Your task to perform on an android device: Search for the best running shoes on Nike. Image 0: 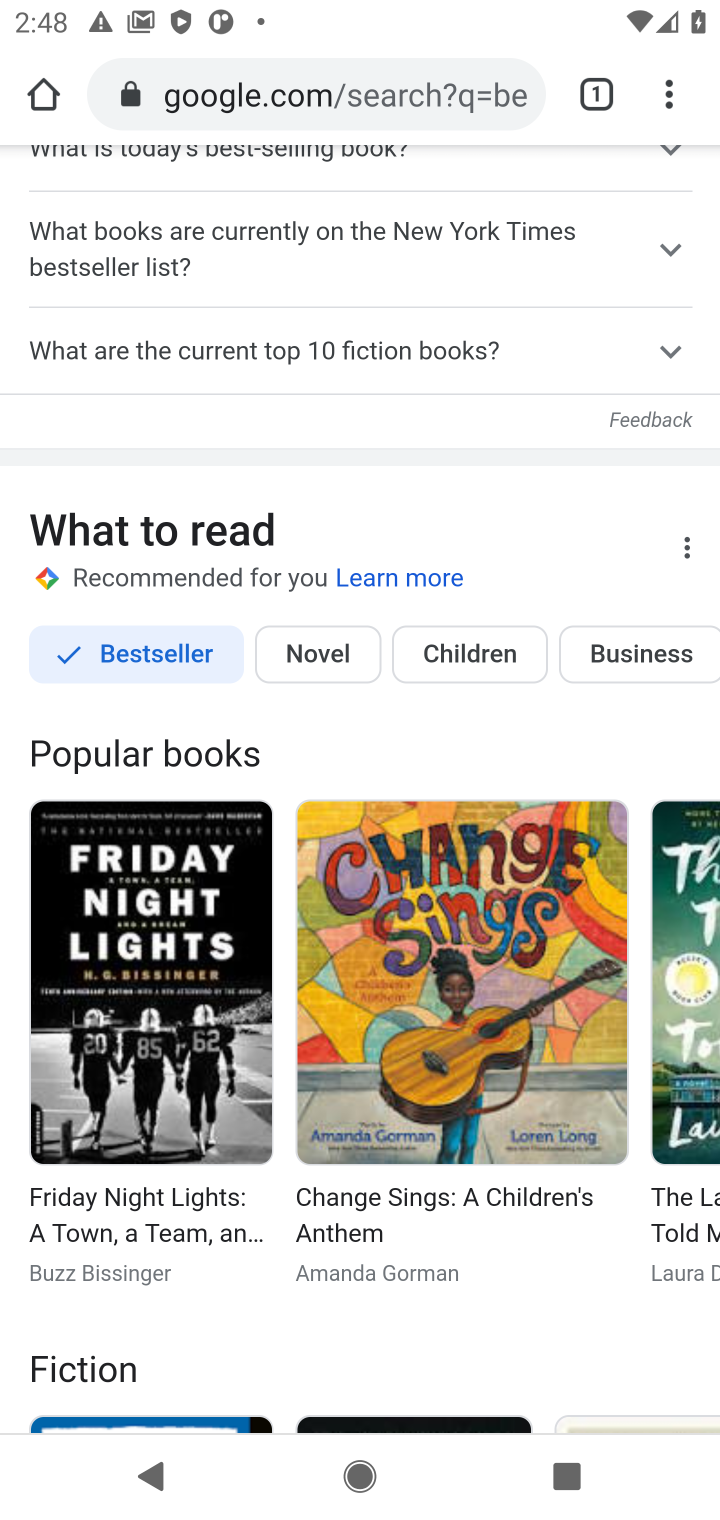
Step 0: press home button
Your task to perform on an android device: Search for the best running shoes on Nike. Image 1: 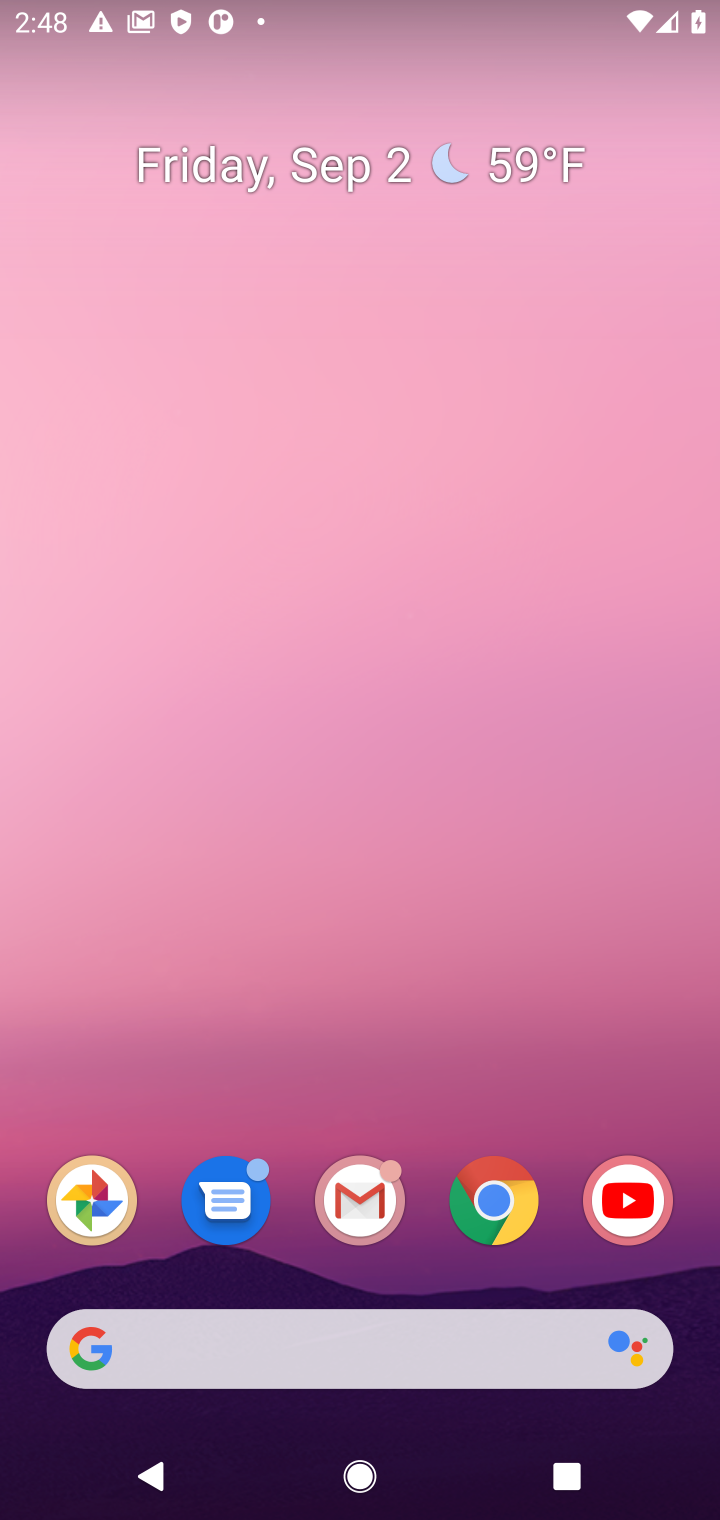
Step 1: click (502, 1201)
Your task to perform on an android device: Search for the best running shoes on Nike. Image 2: 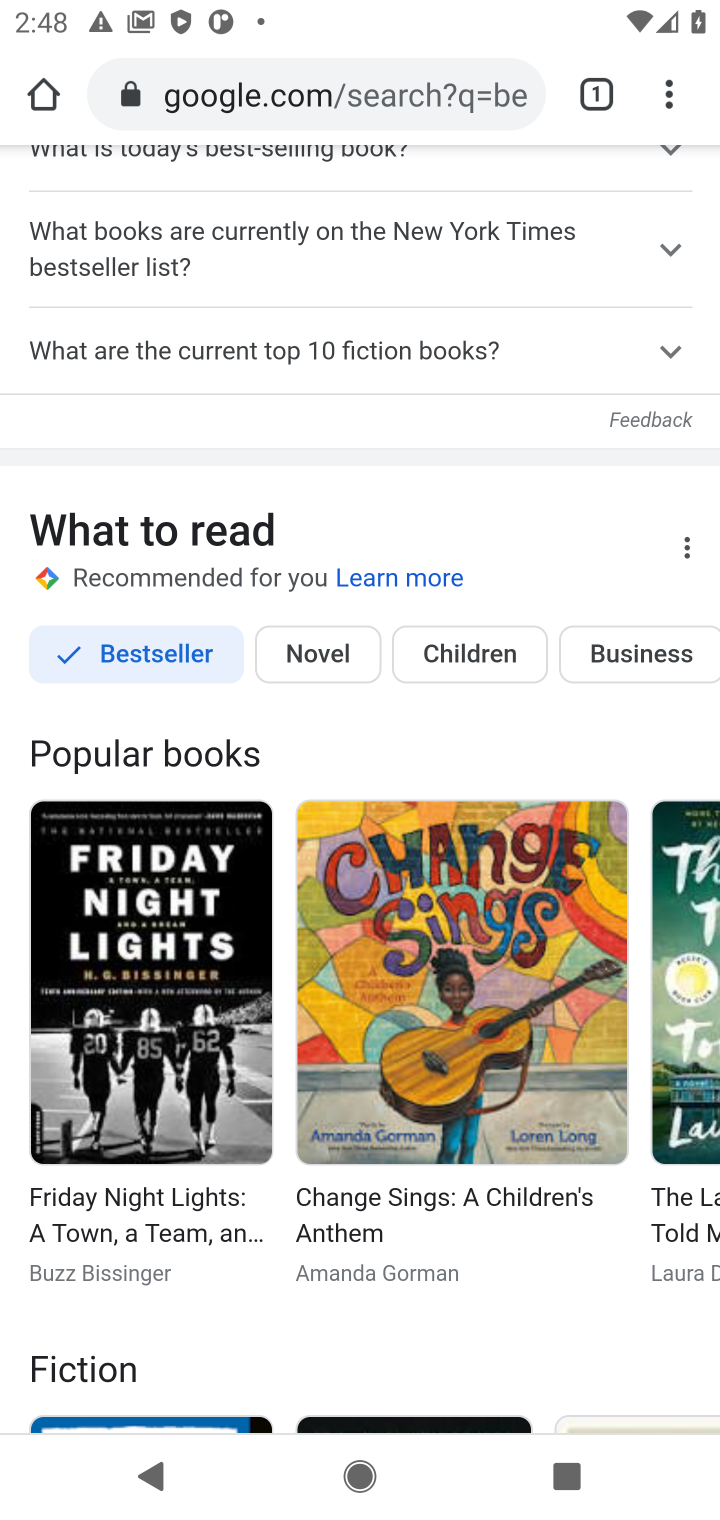
Step 2: click (357, 93)
Your task to perform on an android device: Search for the best running shoes on Nike. Image 3: 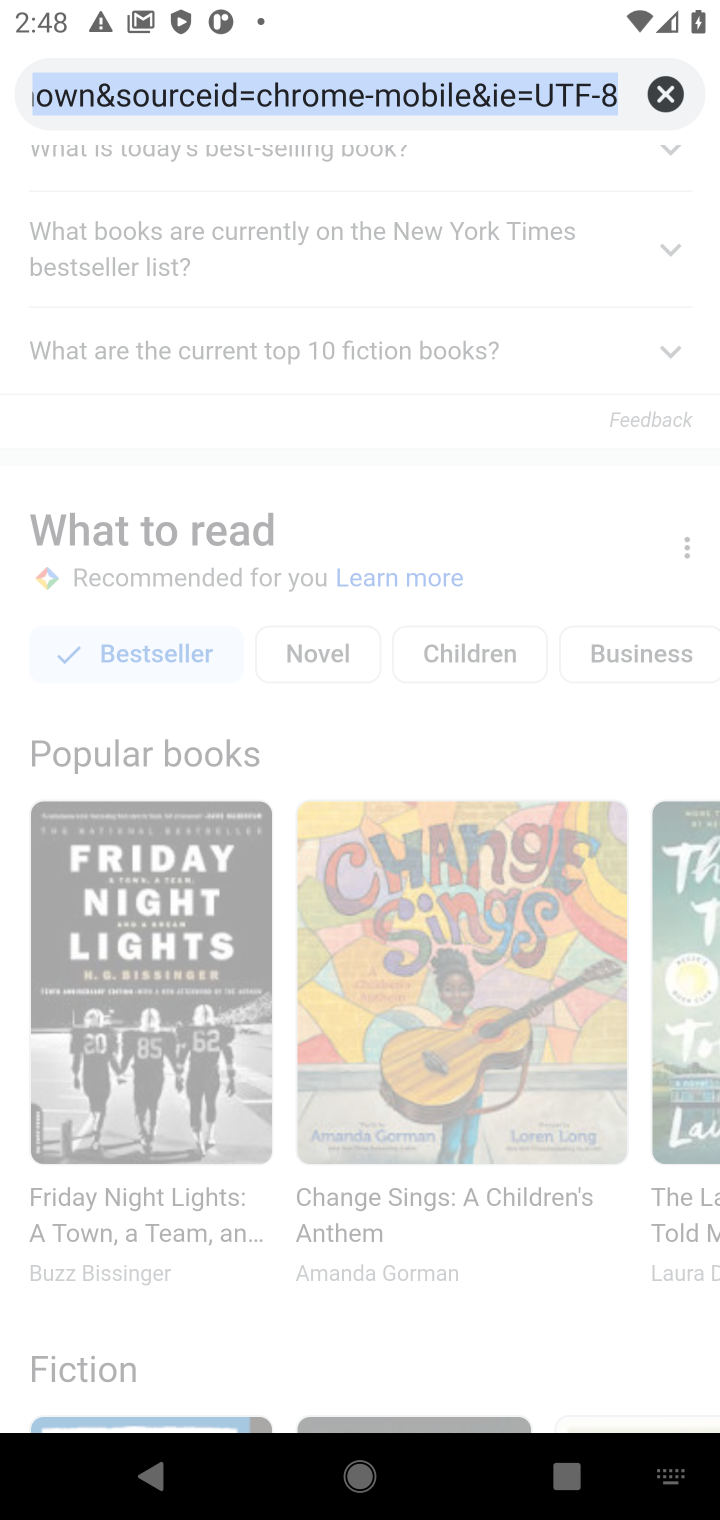
Step 3: click (658, 80)
Your task to perform on an android device: Search for the best running shoes on Nike. Image 4: 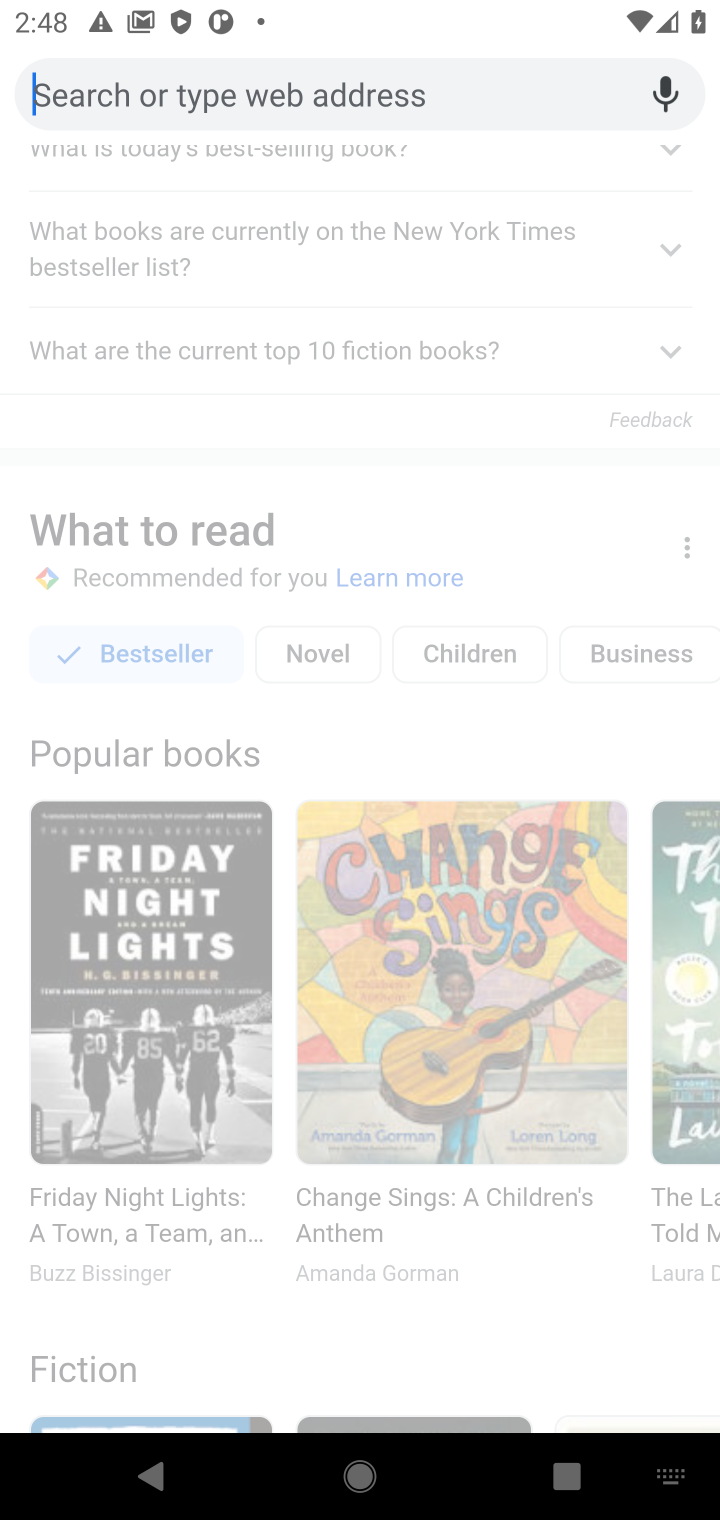
Step 4: type "Nike"
Your task to perform on an android device: Search for the best running shoes on Nike. Image 5: 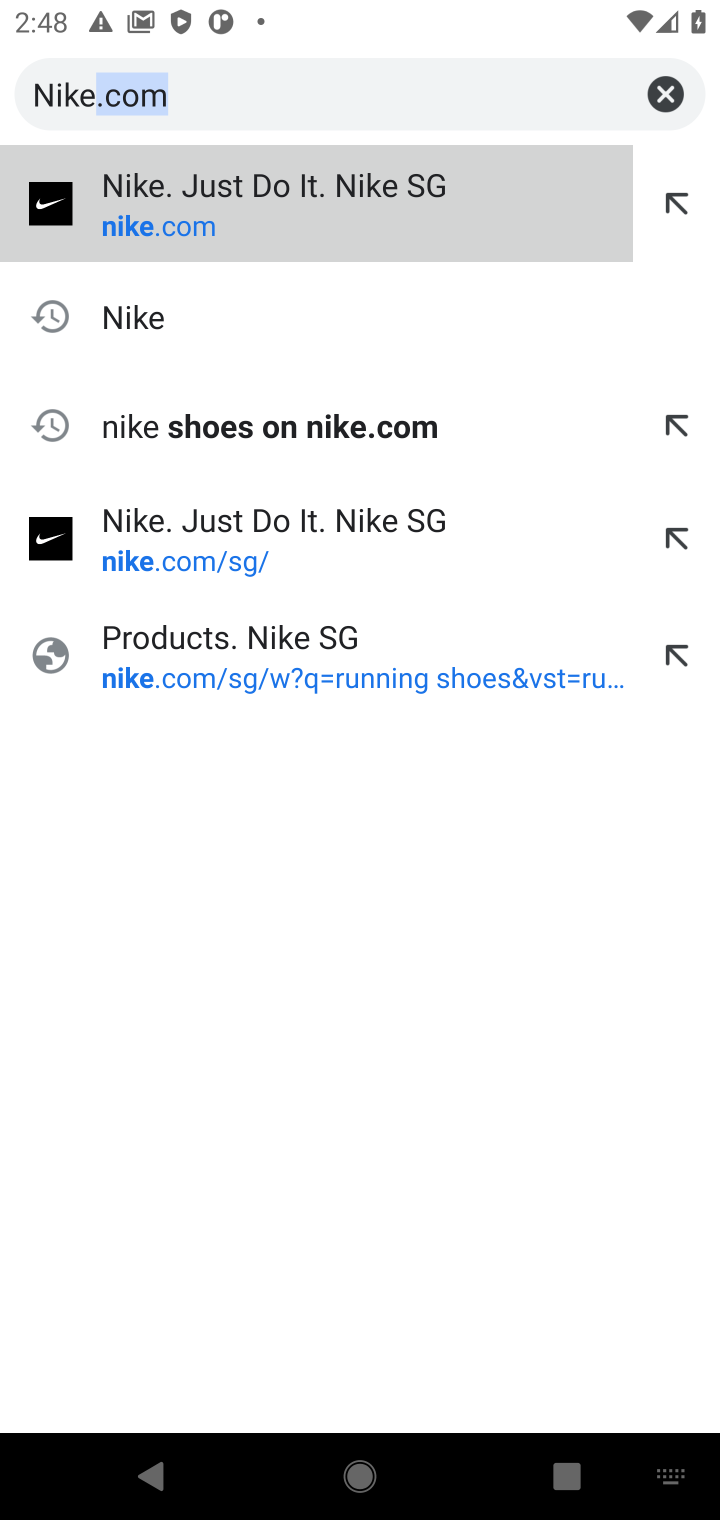
Step 5: press enter
Your task to perform on an android device: Search for the best running shoes on Nike. Image 6: 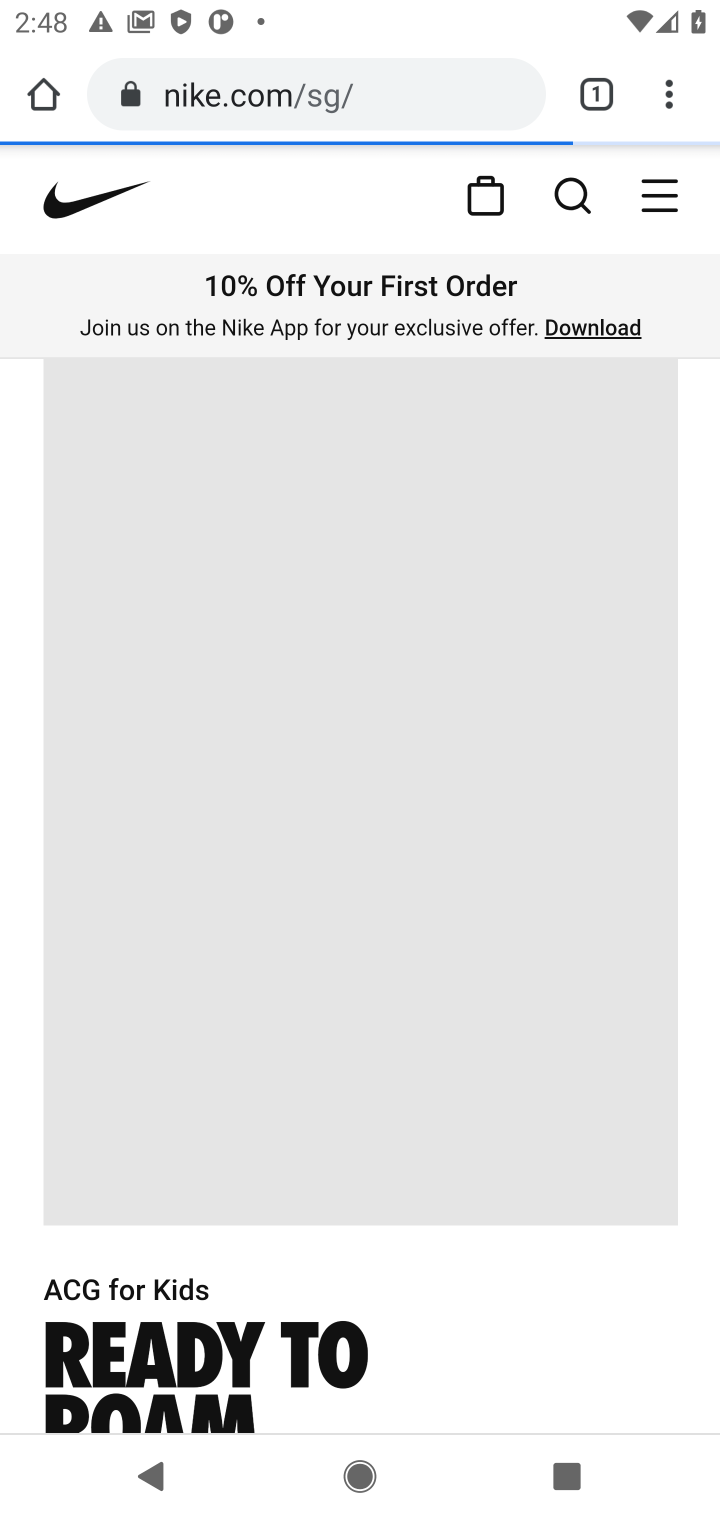
Step 6: click (408, 183)
Your task to perform on an android device: Search for the best running shoes on Nike. Image 7: 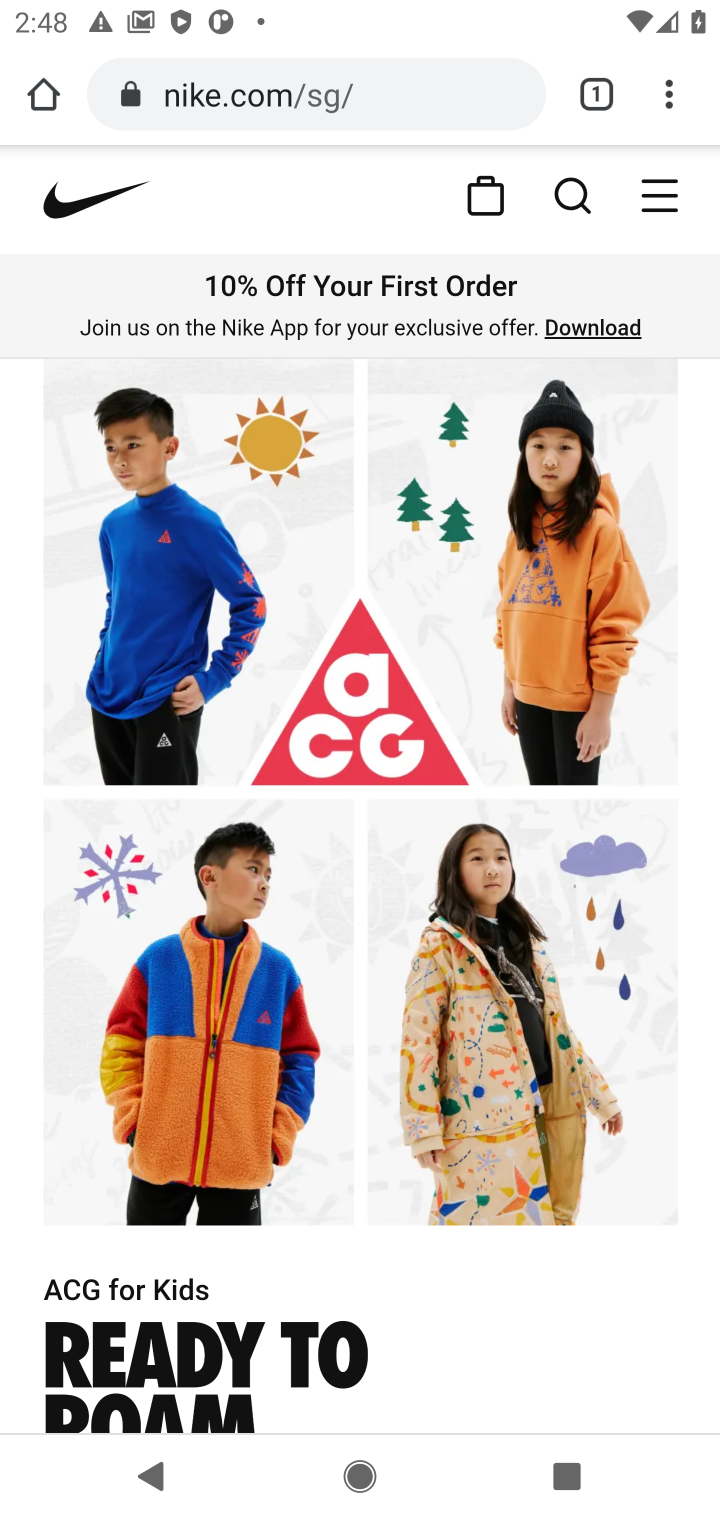
Step 7: click (424, 185)
Your task to perform on an android device: Search for the best running shoes on Nike. Image 8: 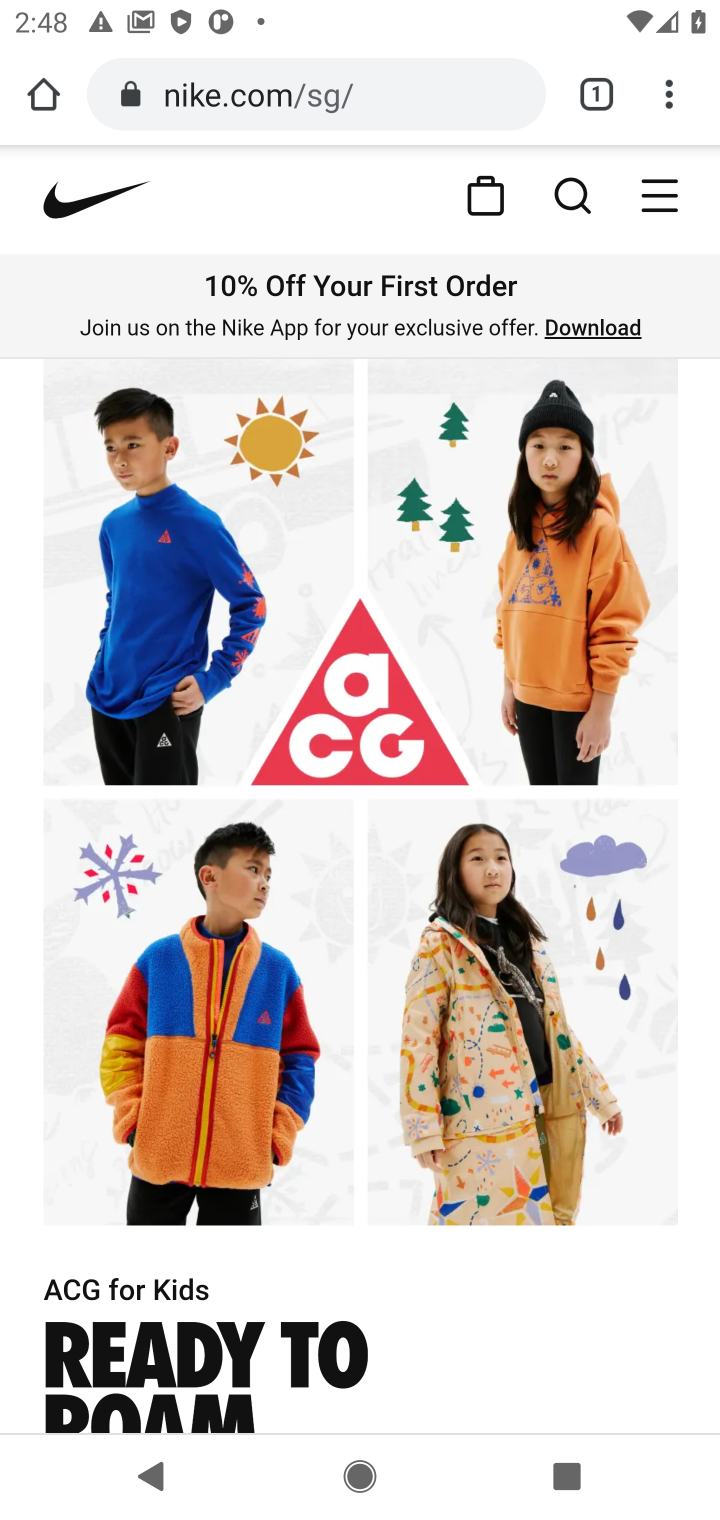
Step 8: click (537, 209)
Your task to perform on an android device: Search for the best running shoes on Nike. Image 9: 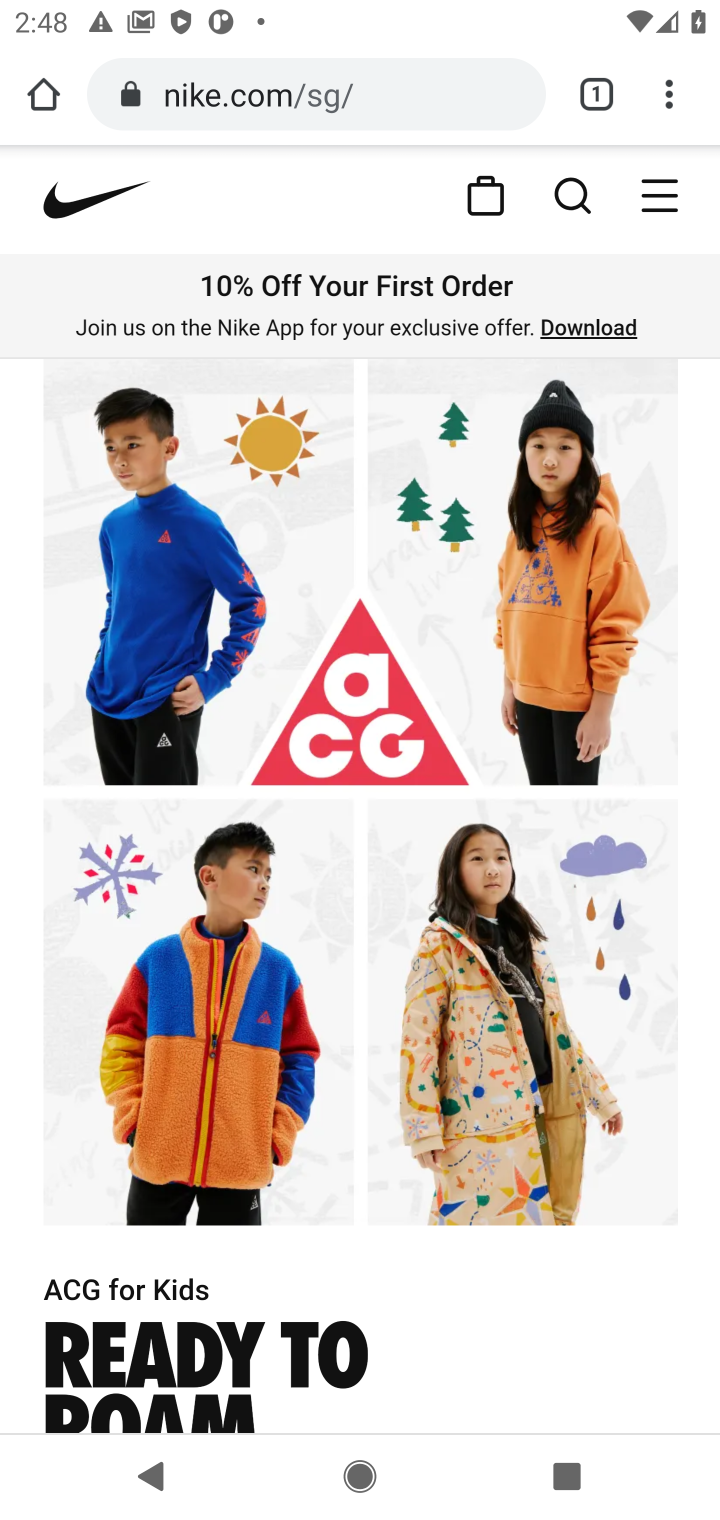
Step 9: click (562, 166)
Your task to perform on an android device: Search for the best running shoes on Nike. Image 10: 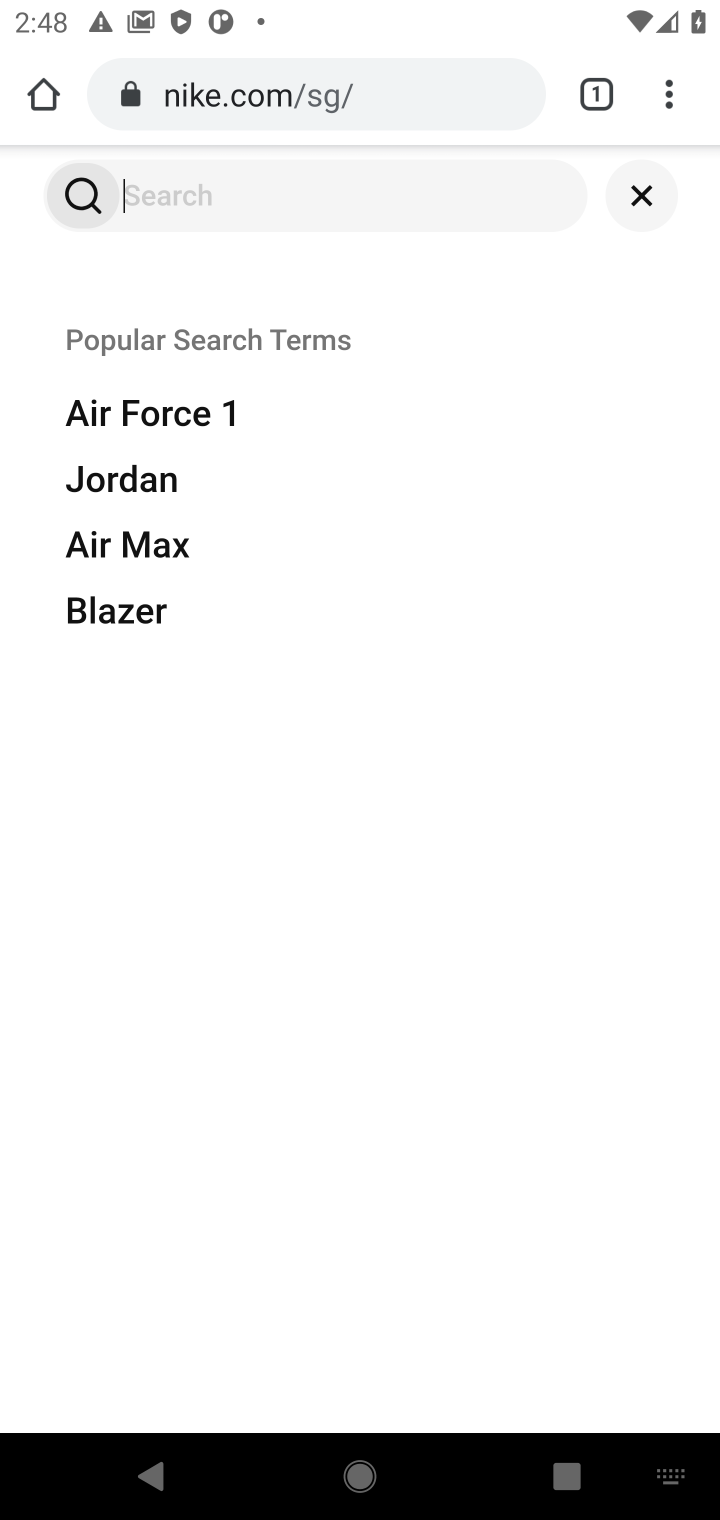
Step 10: click (319, 179)
Your task to perform on an android device: Search for the best running shoes on Nike. Image 11: 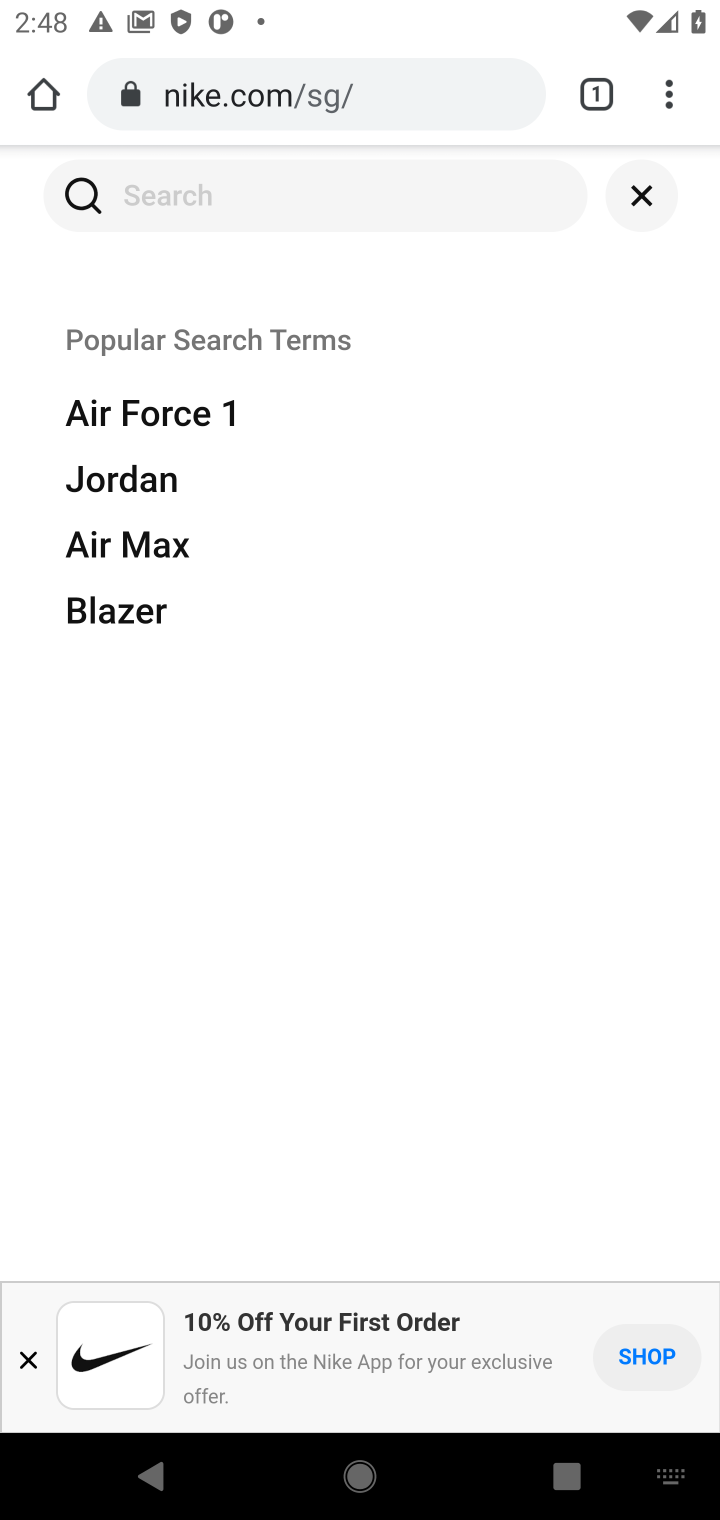
Step 11: type " running shoes"
Your task to perform on an android device: Search for the best running shoes on Nike. Image 12: 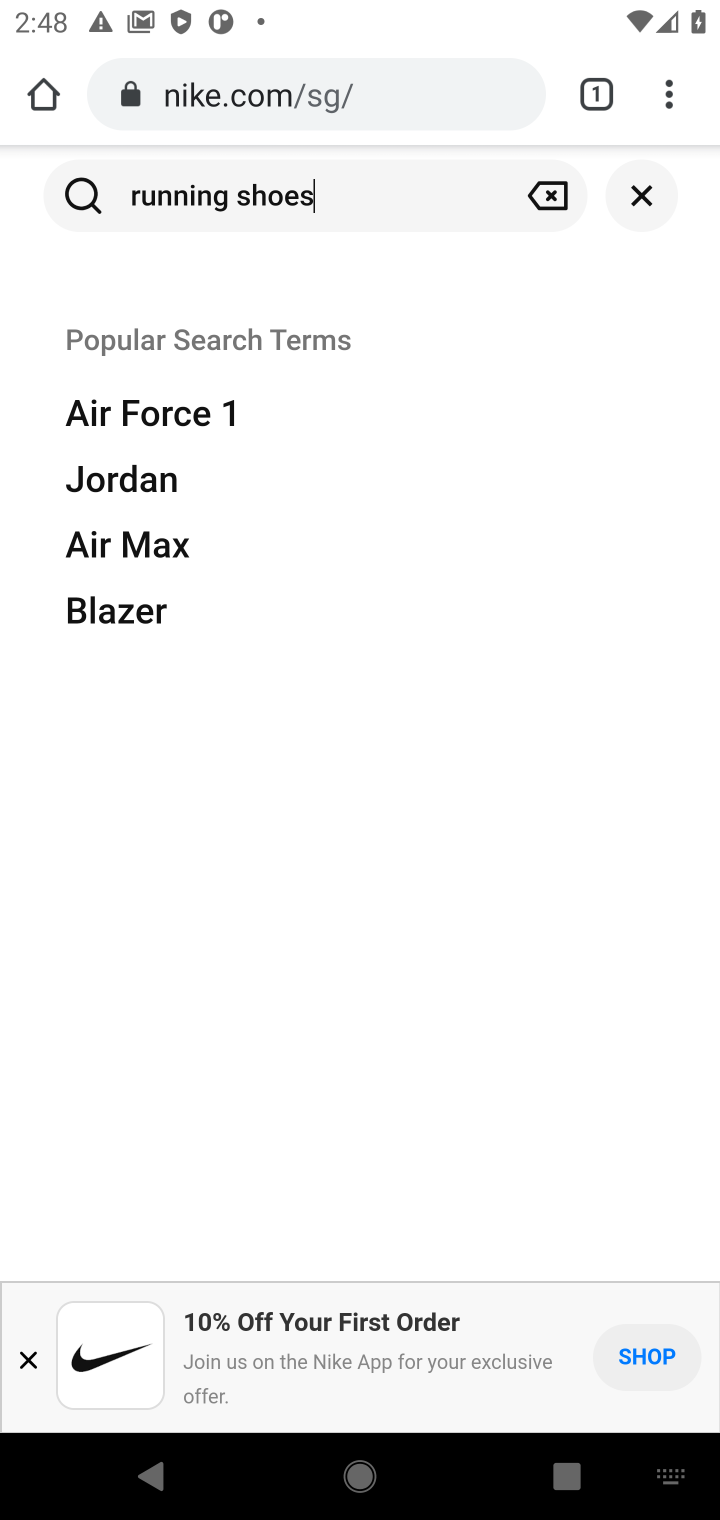
Step 12: press enter
Your task to perform on an android device: Search for the best running shoes on Nike. Image 13: 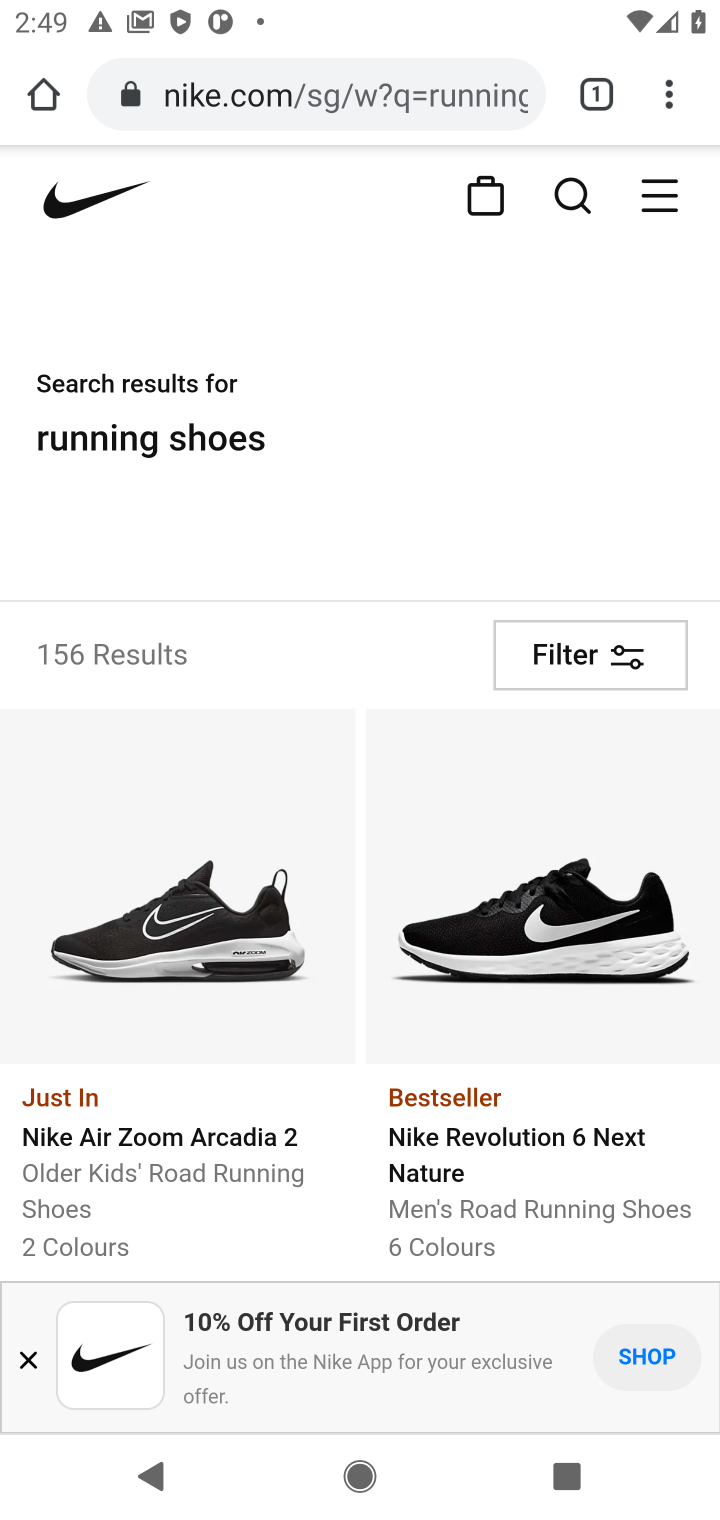
Step 13: task complete